Your task to perform on an android device: Play the last video I watched on Youtube Image 0: 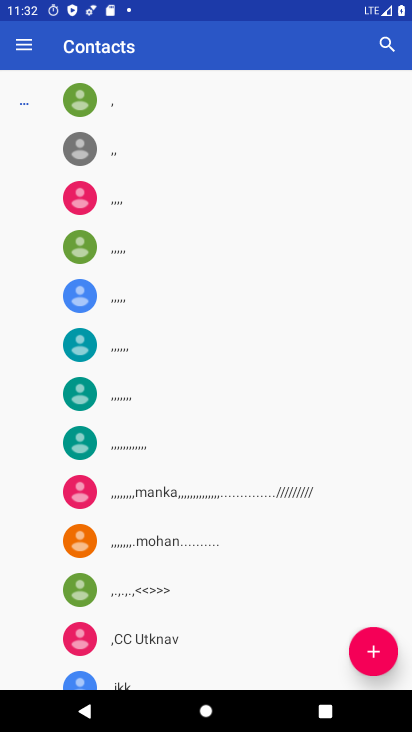
Step 0: press home button
Your task to perform on an android device: Play the last video I watched on Youtube Image 1: 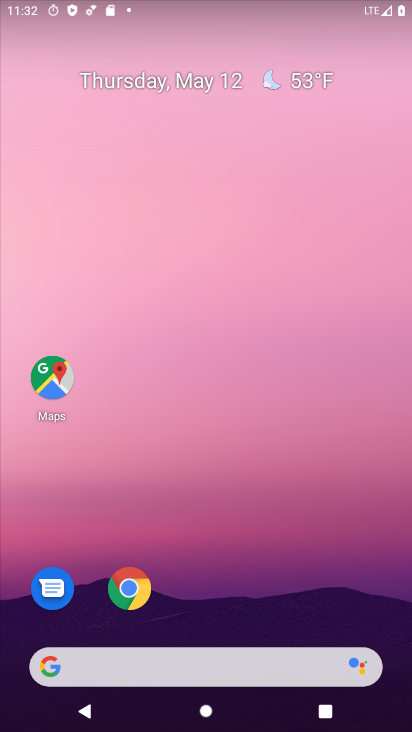
Step 1: drag from (306, 579) to (245, 117)
Your task to perform on an android device: Play the last video I watched on Youtube Image 2: 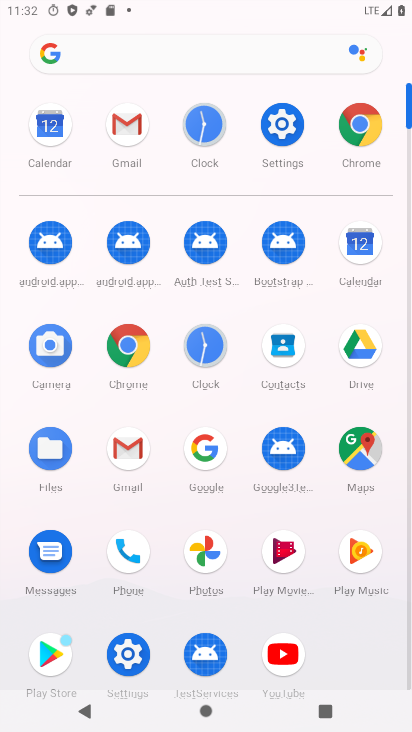
Step 2: click (292, 646)
Your task to perform on an android device: Play the last video I watched on Youtube Image 3: 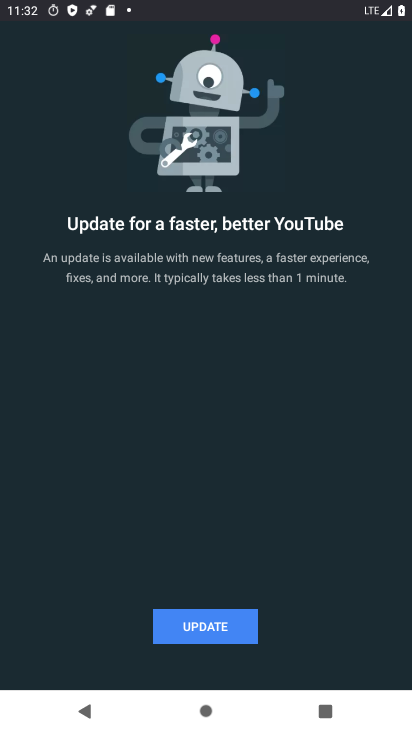
Step 3: click (227, 626)
Your task to perform on an android device: Play the last video I watched on Youtube Image 4: 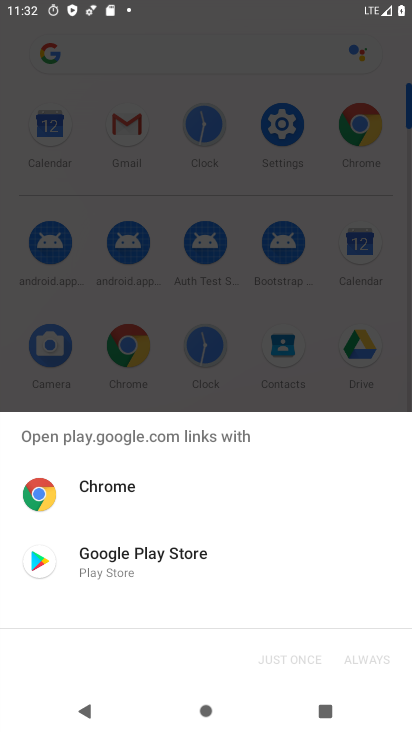
Step 4: click (97, 552)
Your task to perform on an android device: Play the last video I watched on Youtube Image 5: 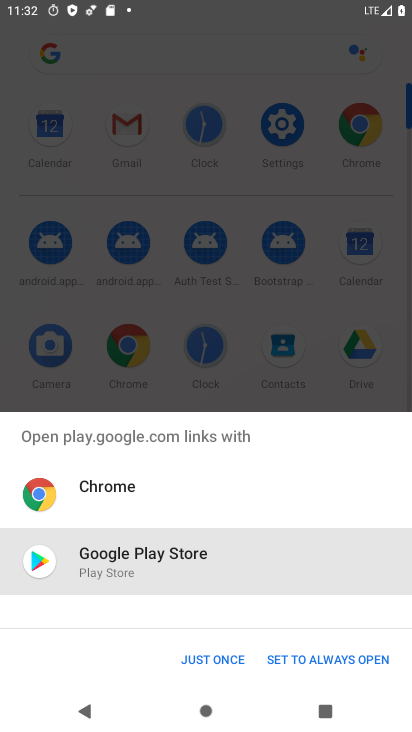
Step 5: click (209, 655)
Your task to perform on an android device: Play the last video I watched on Youtube Image 6: 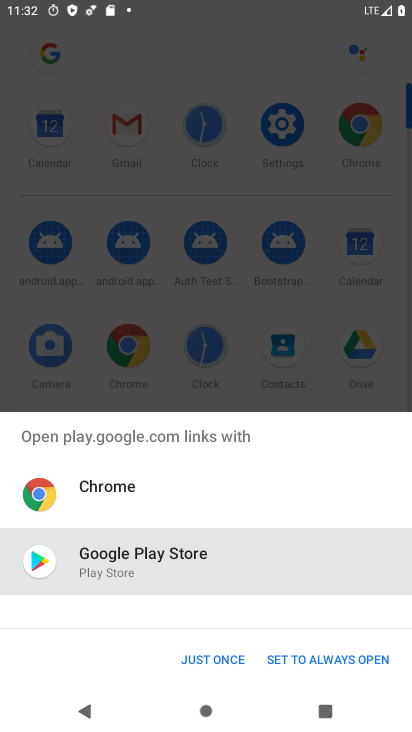
Step 6: click (216, 656)
Your task to perform on an android device: Play the last video I watched on Youtube Image 7: 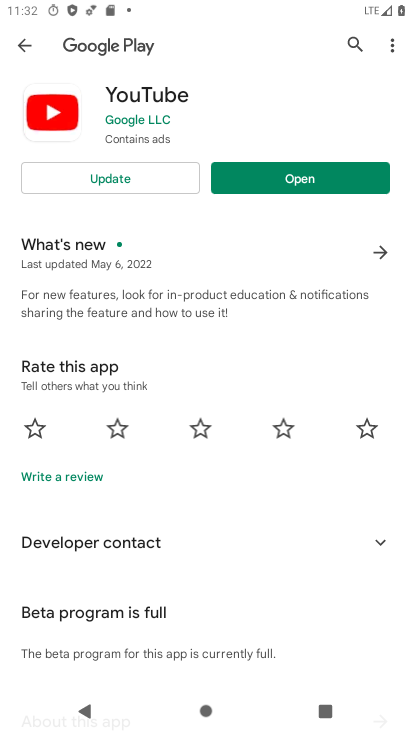
Step 7: click (143, 188)
Your task to perform on an android device: Play the last video I watched on Youtube Image 8: 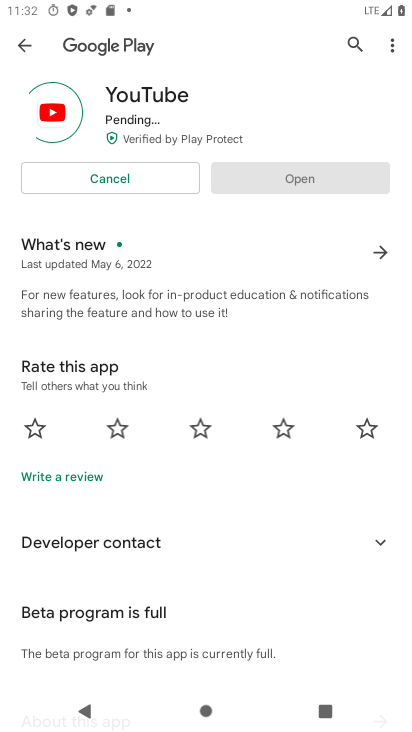
Step 8: task complete